Your task to perform on an android device: find which apps use the phone's location Image 0: 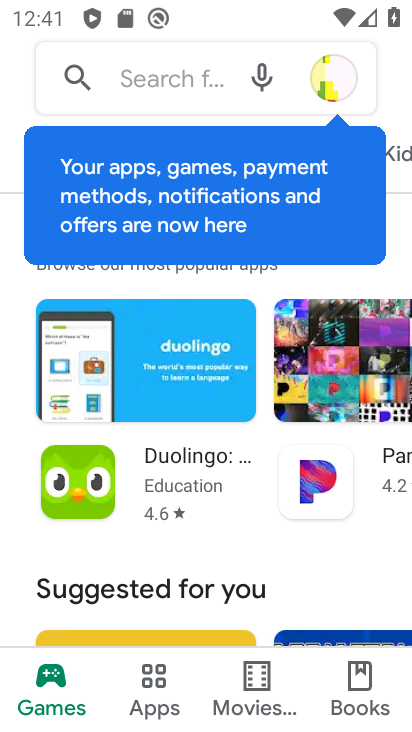
Step 0: press home button
Your task to perform on an android device: find which apps use the phone's location Image 1: 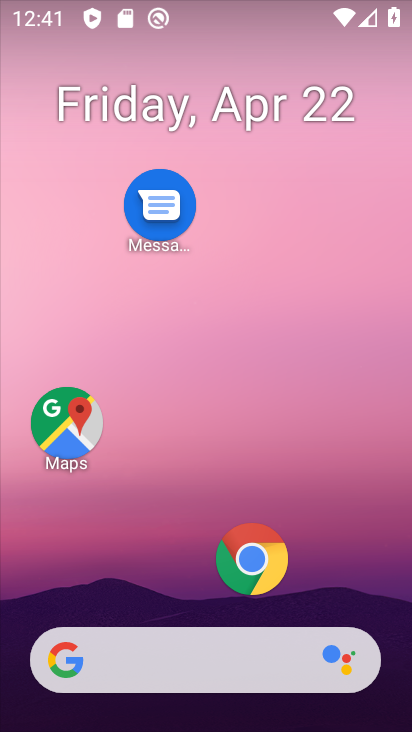
Step 1: drag from (206, 599) to (239, 100)
Your task to perform on an android device: find which apps use the phone's location Image 2: 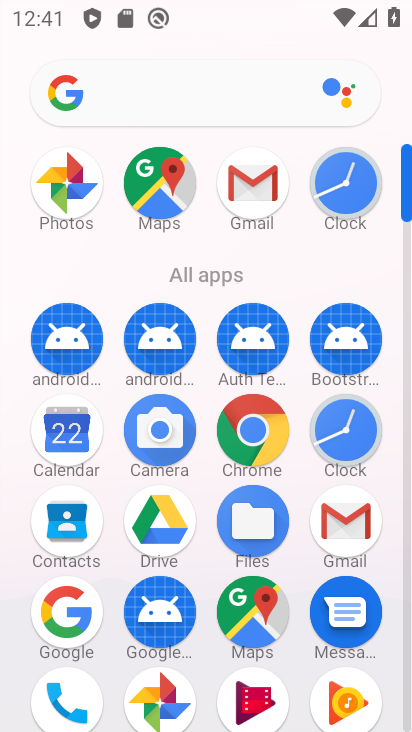
Step 2: drag from (210, 557) to (210, 162)
Your task to perform on an android device: find which apps use the phone's location Image 3: 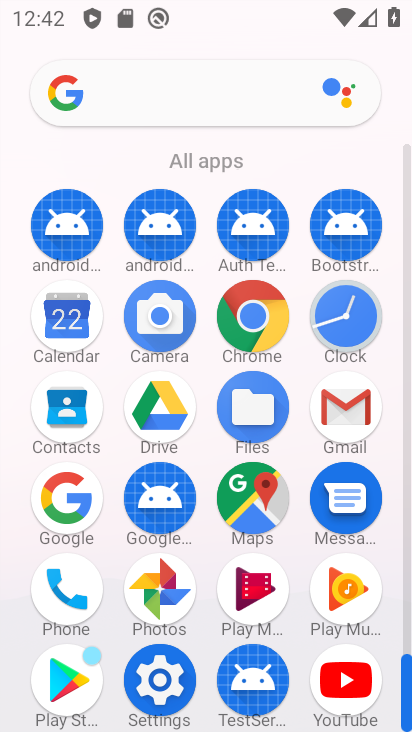
Step 3: click (158, 668)
Your task to perform on an android device: find which apps use the phone's location Image 4: 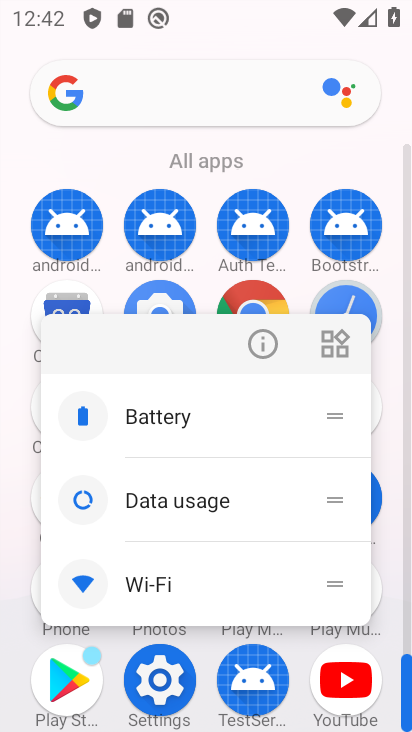
Step 4: click (156, 673)
Your task to perform on an android device: find which apps use the phone's location Image 5: 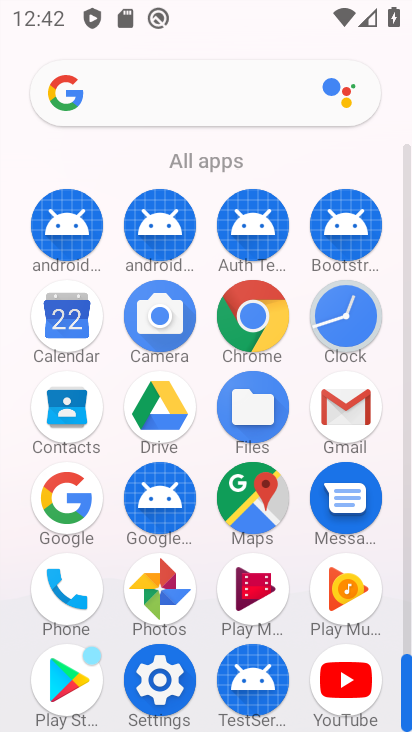
Step 5: click (164, 684)
Your task to perform on an android device: find which apps use the phone's location Image 6: 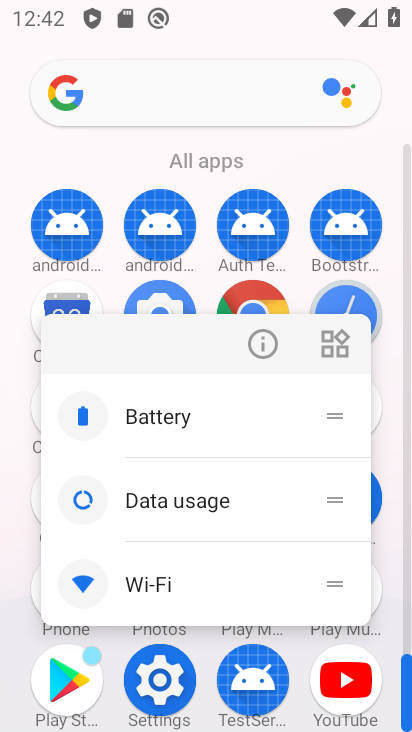
Step 6: click (164, 684)
Your task to perform on an android device: find which apps use the phone's location Image 7: 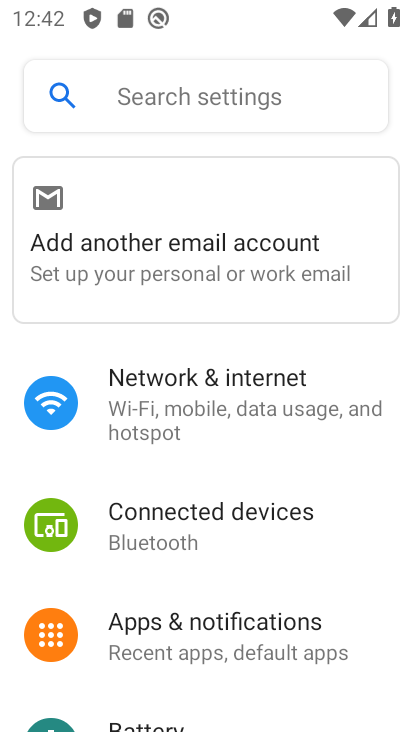
Step 7: drag from (229, 702) to (252, 204)
Your task to perform on an android device: find which apps use the phone's location Image 8: 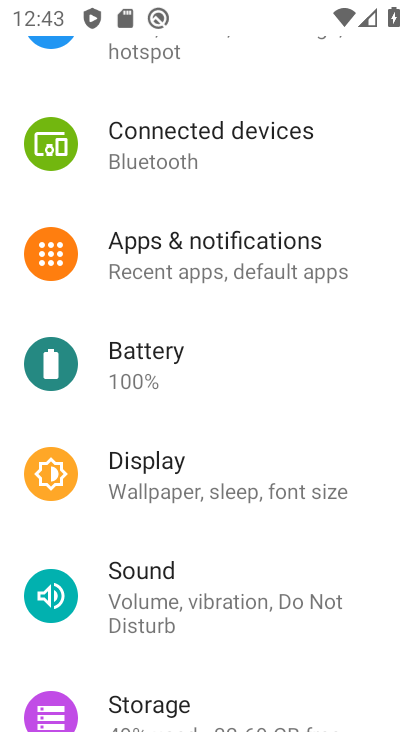
Step 8: drag from (193, 675) to (217, 10)
Your task to perform on an android device: find which apps use the phone's location Image 9: 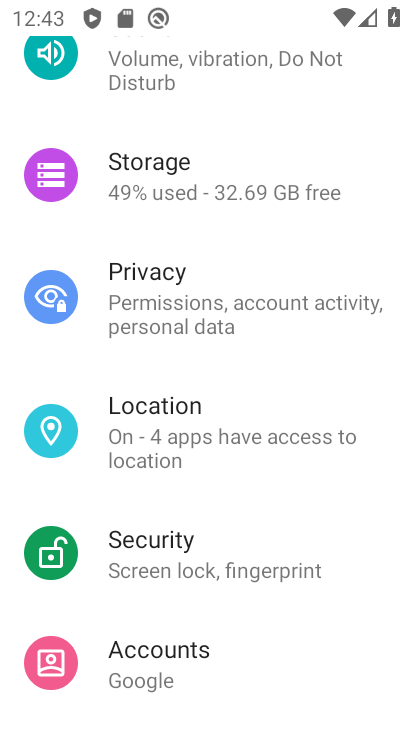
Step 9: click (209, 414)
Your task to perform on an android device: find which apps use the phone's location Image 10: 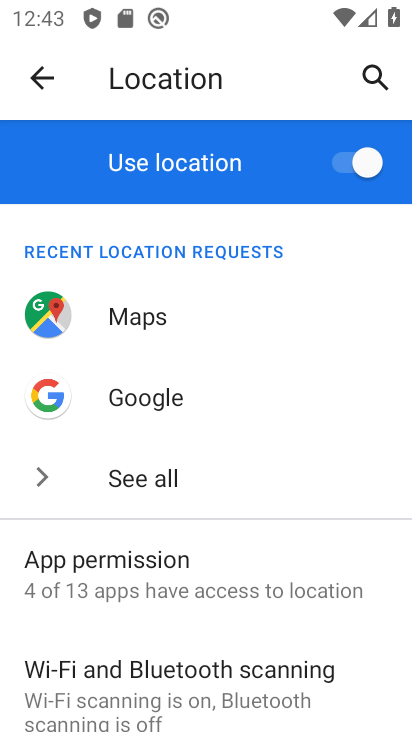
Step 10: click (197, 560)
Your task to perform on an android device: find which apps use the phone's location Image 11: 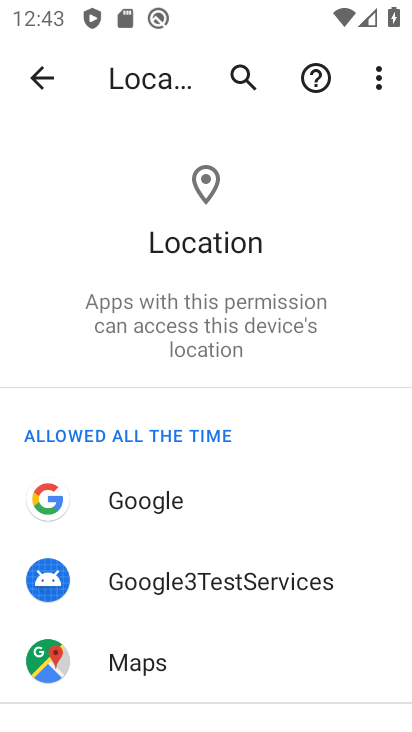
Step 11: task complete